Your task to perform on an android device: Add "lenovo thinkpad" to the cart on bestbuy.com, then select checkout. Image 0: 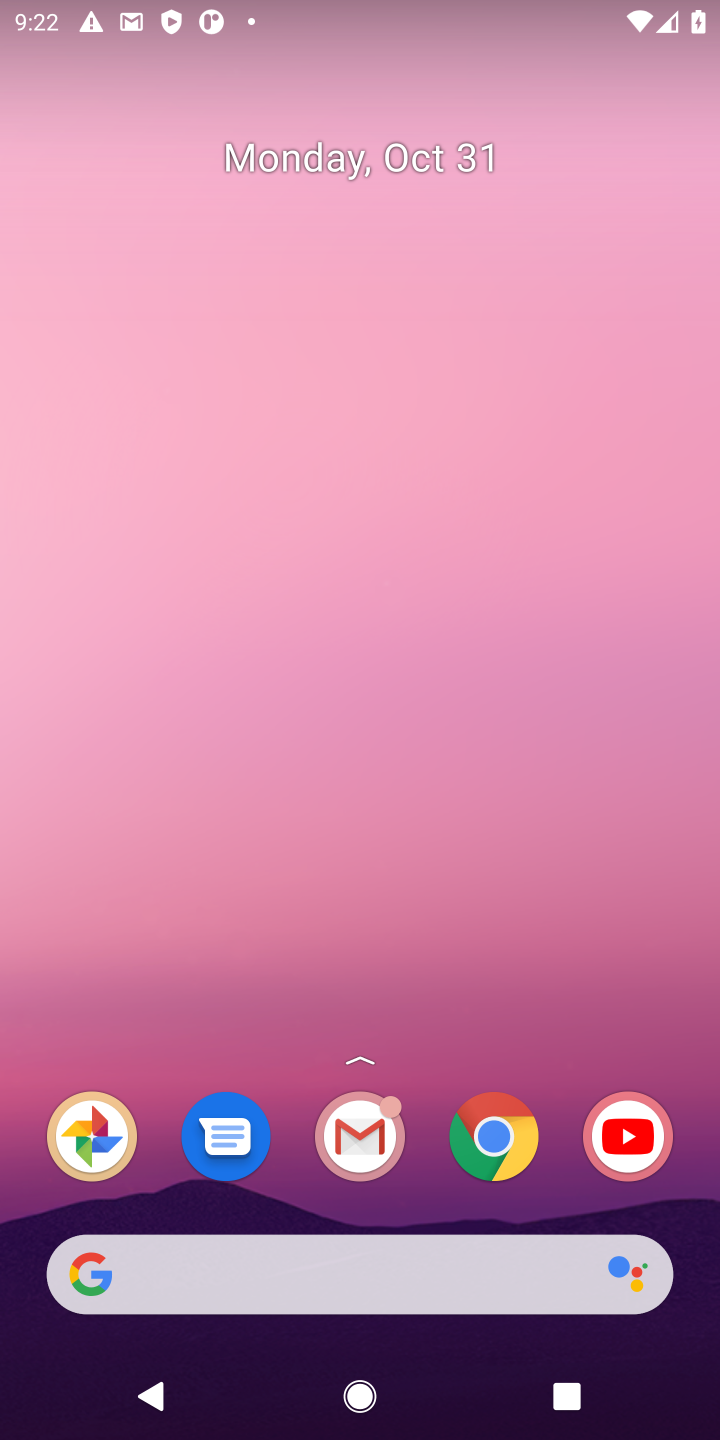
Step 0: task complete